Your task to perform on an android device: Clear the shopping cart on amazon. Add asus zenbook to the cart on amazon Image 0: 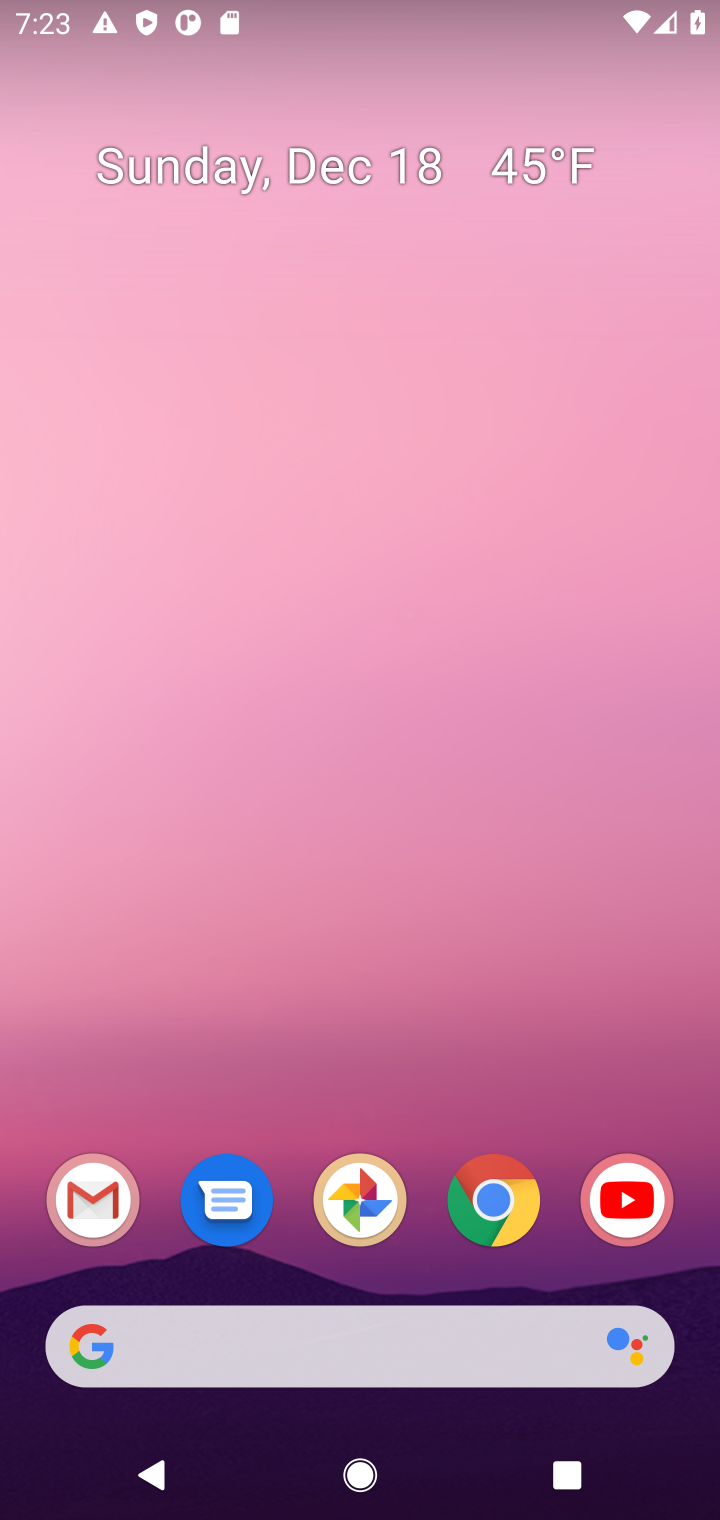
Step 0: click (505, 1198)
Your task to perform on an android device: Clear the shopping cart on amazon. Add asus zenbook to the cart on amazon Image 1: 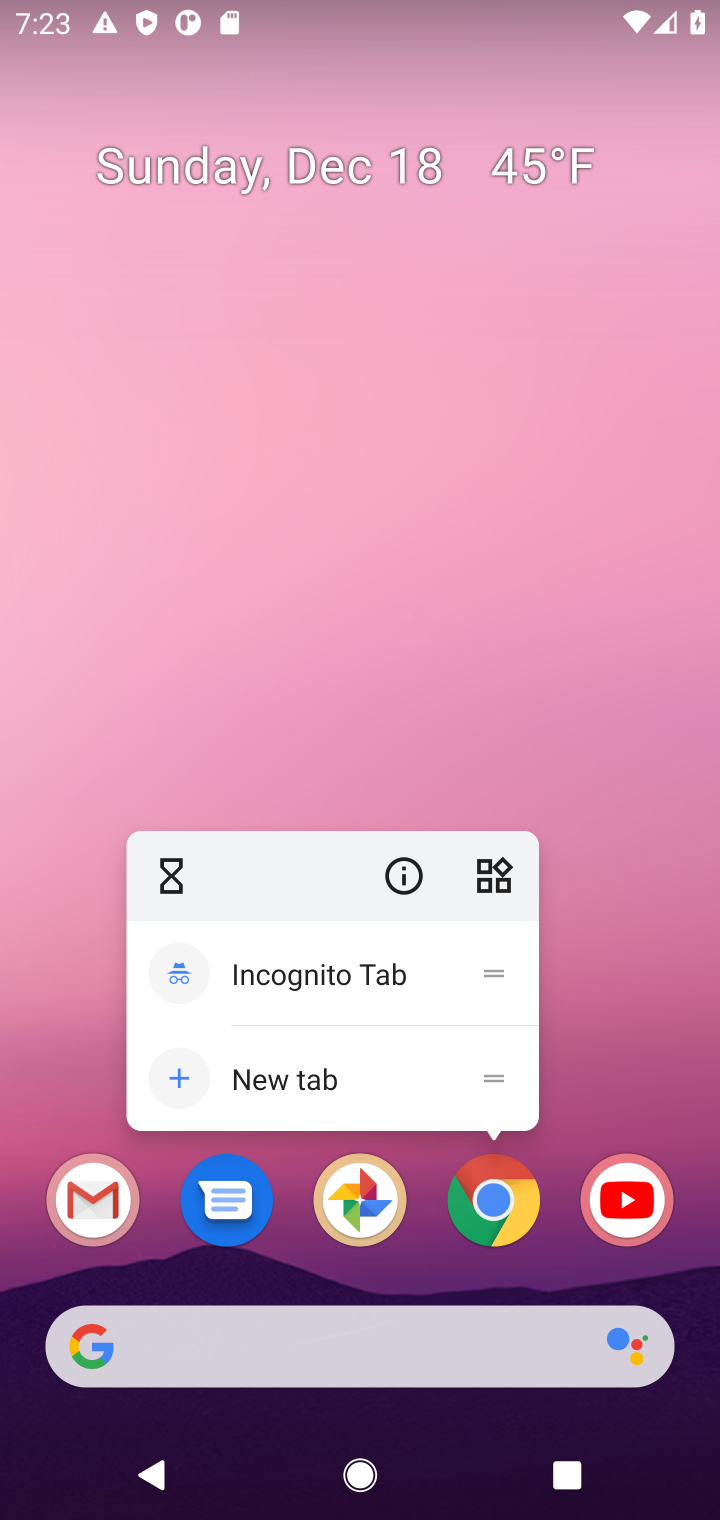
Step 1: click (499, 1205)
Your task to perform on an android device: Clear the shopping cart on amazon. Add asus zenbook to the cart on amazon Image 2: 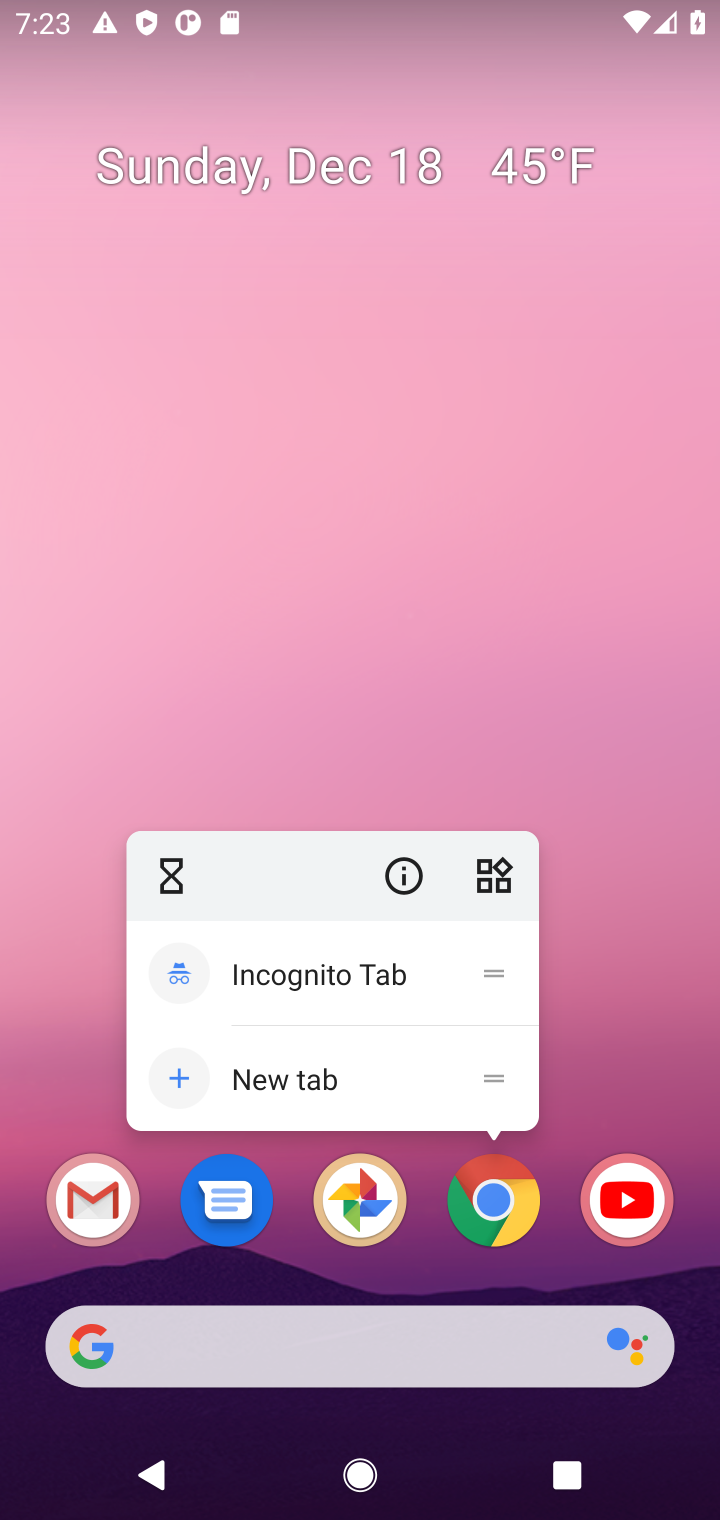
Step 2: click (492, 1198)
Your task to perform on an android device: Clear the shopping cart on amazon. Add asus zenbook to the cart on amazon Image 3: 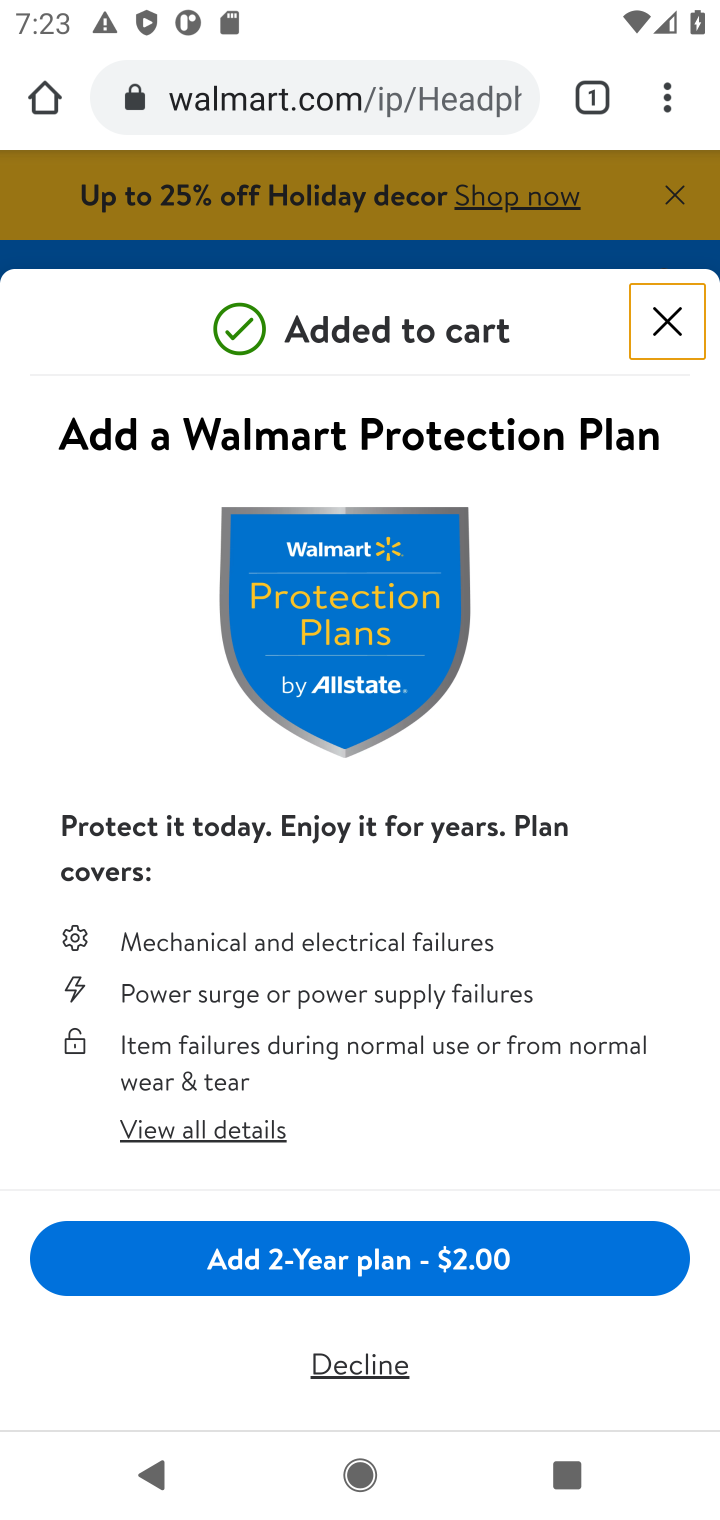
Step 3: click (218, 101)
Your task to perform on an android device: Clear the shopping cart on amazon. Add asus zenbook to the cart on amazon Image 4: 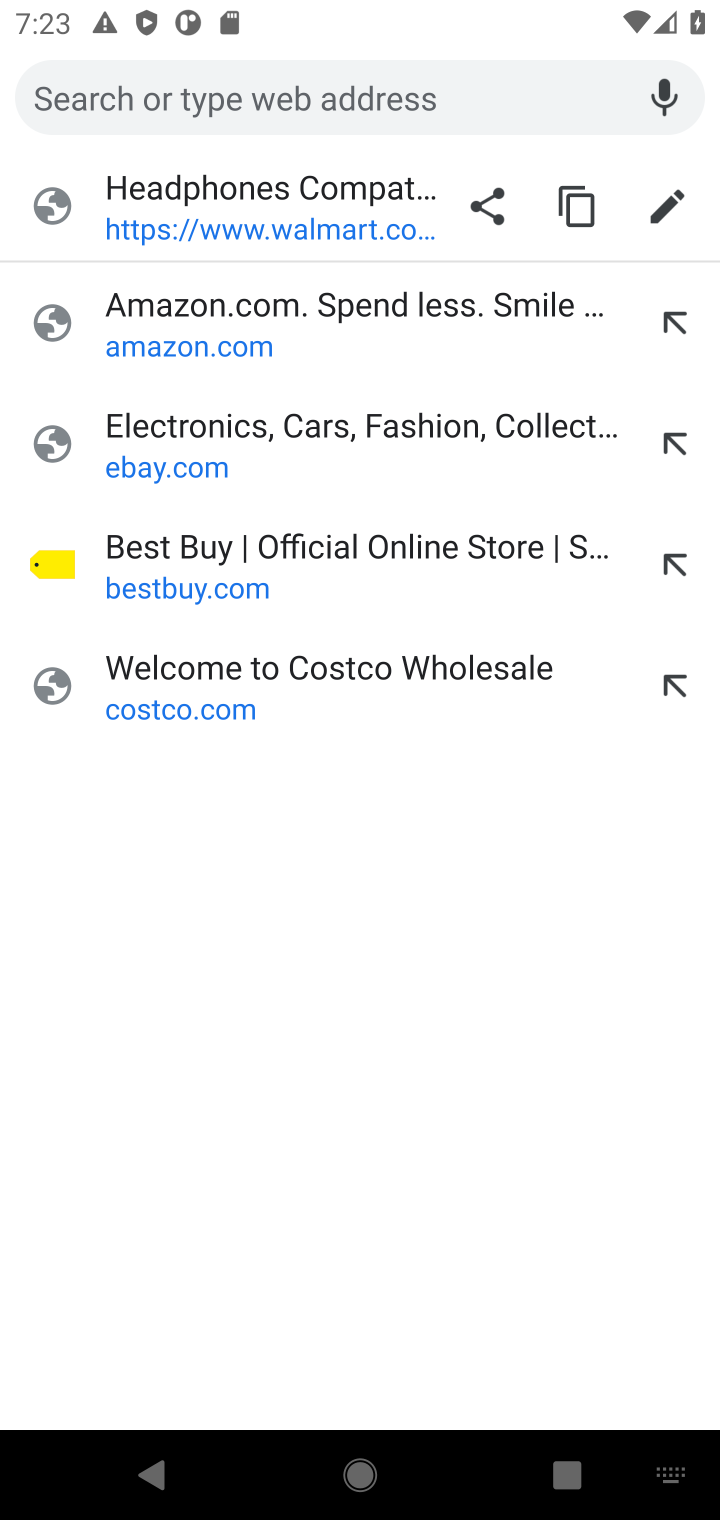
Step 4: click (139, 332)
Your task to perform on an android device: Clear the shopping cart on amazon. Add asus zenbook to the cart on amazon Image 5: 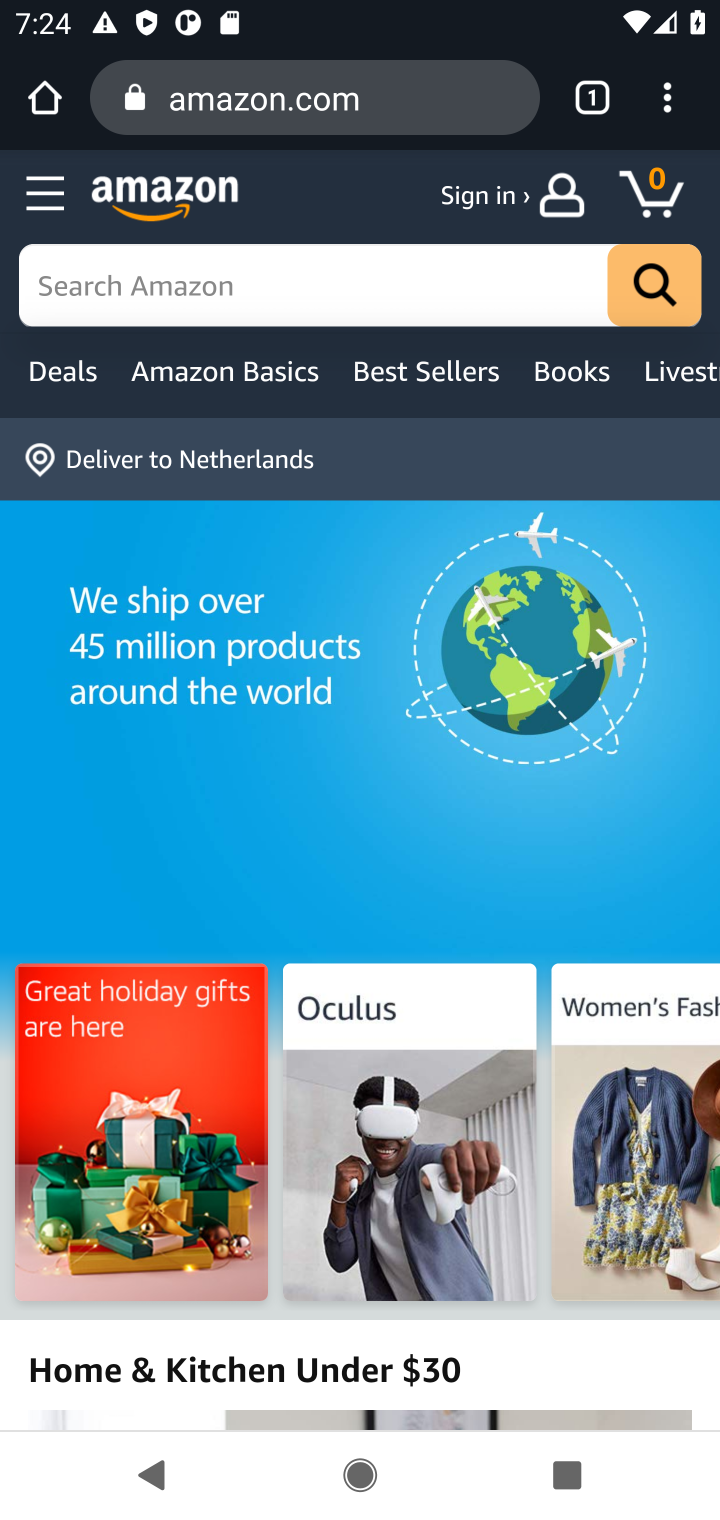
Step 5: click (656, 206)
Your task to perform on an android device: Clear the shopping cart on amazon. Add asus zenbook to the cart on amazon Image 6: 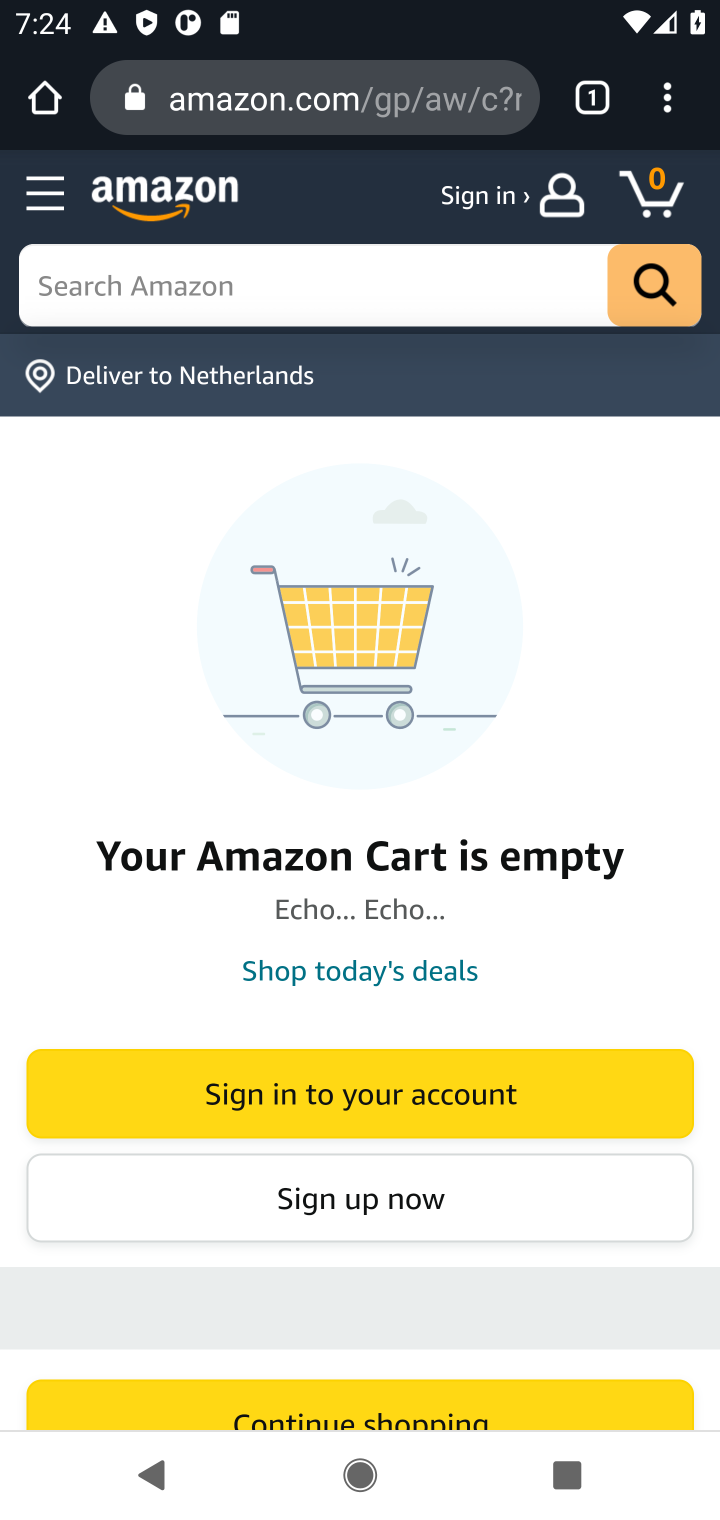
Step 6: click (80, 290)
Your task to perform on an android device: Clear the shopping cart on amazon. Add asus zenbook to the cart on amazon Image 7: 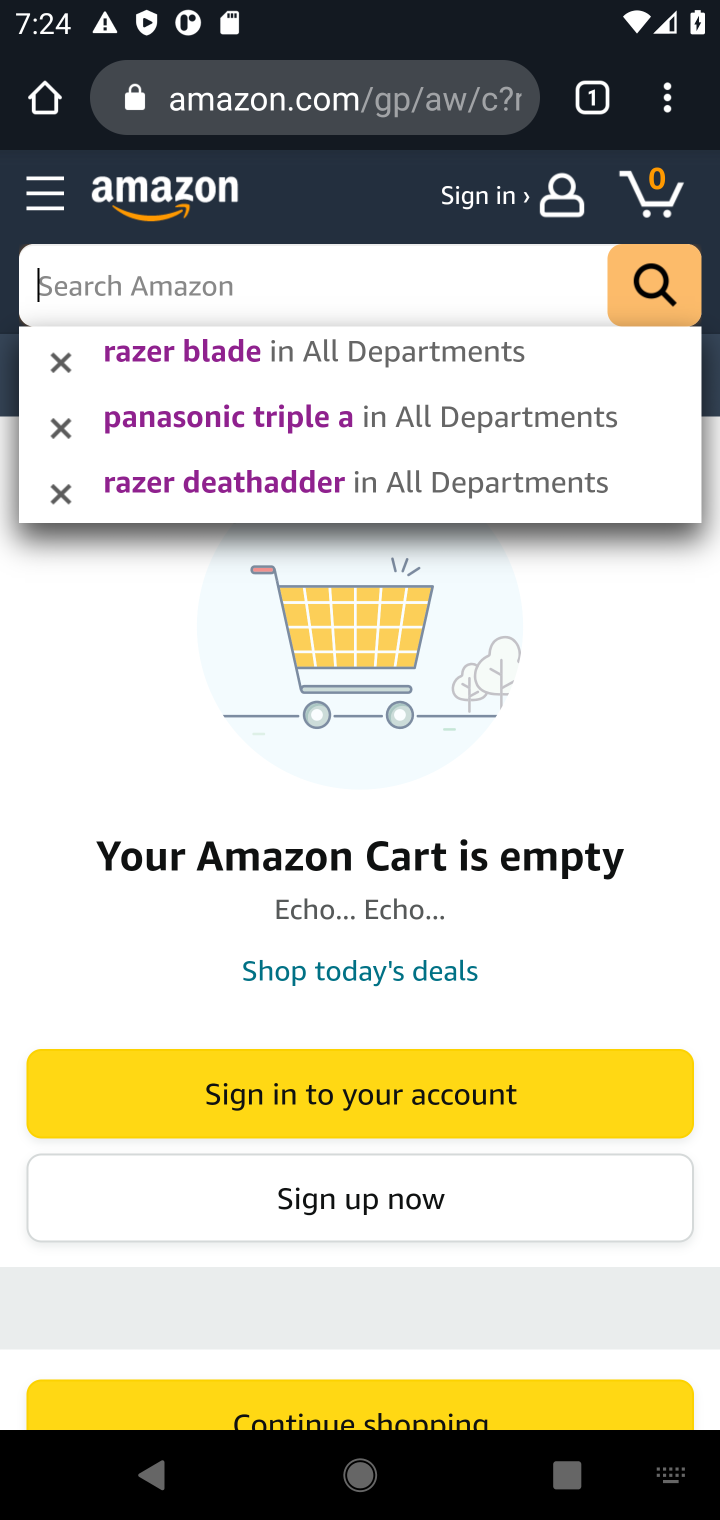
Step 7: type "asus zenbook"
Your task to perform on an android device: Clear the shopping cart on amazon. Add asus zenbook to the cart on amazon Image 8: 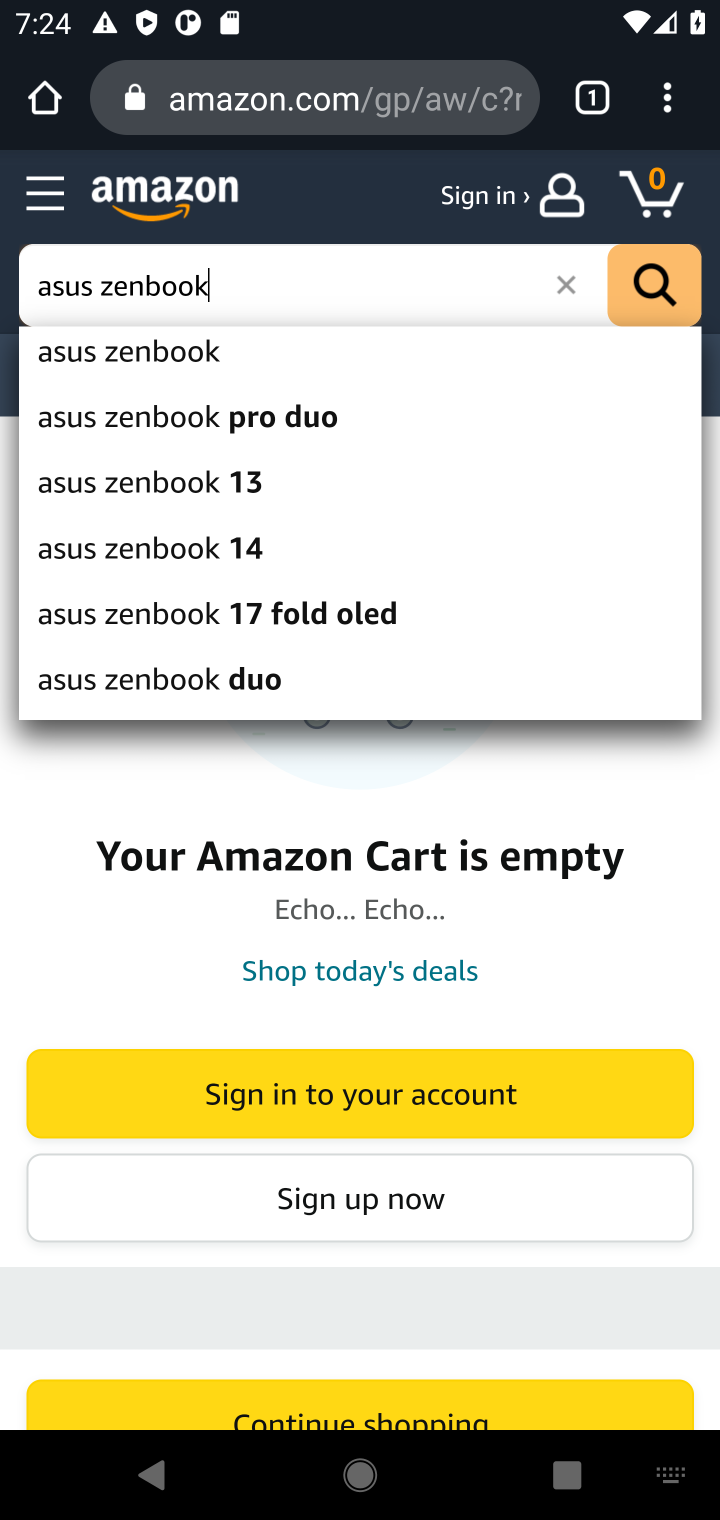
Step 8: click (168, 355)
Your task to perform on an android device: Clear the shopping cart on amazon. Add asus zenbook to the cart on amazon Image 9: 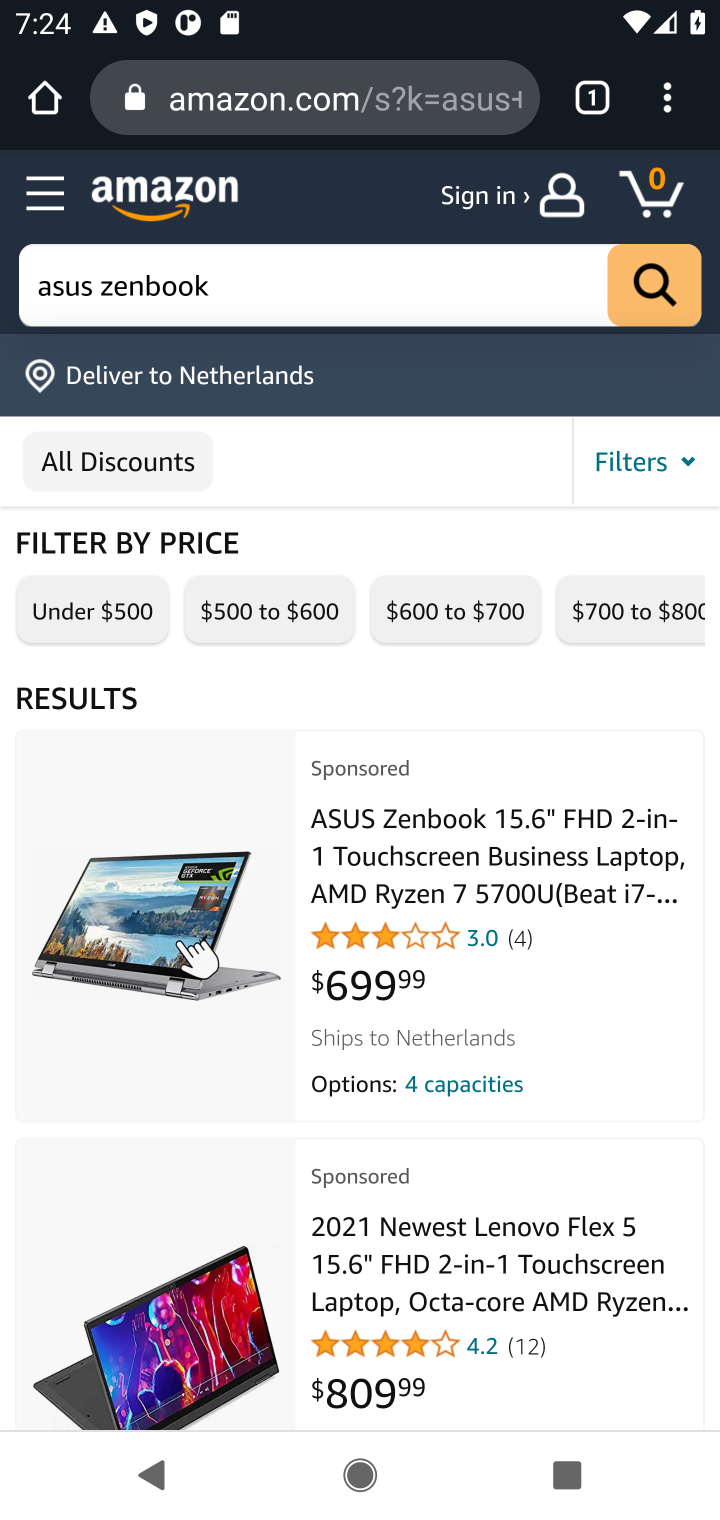
Step 9: click (350, 866)
Your task to perform on an android device: Clear the shopping cart on amazon. Add asus zenbook to the cart on amazon Image 10: 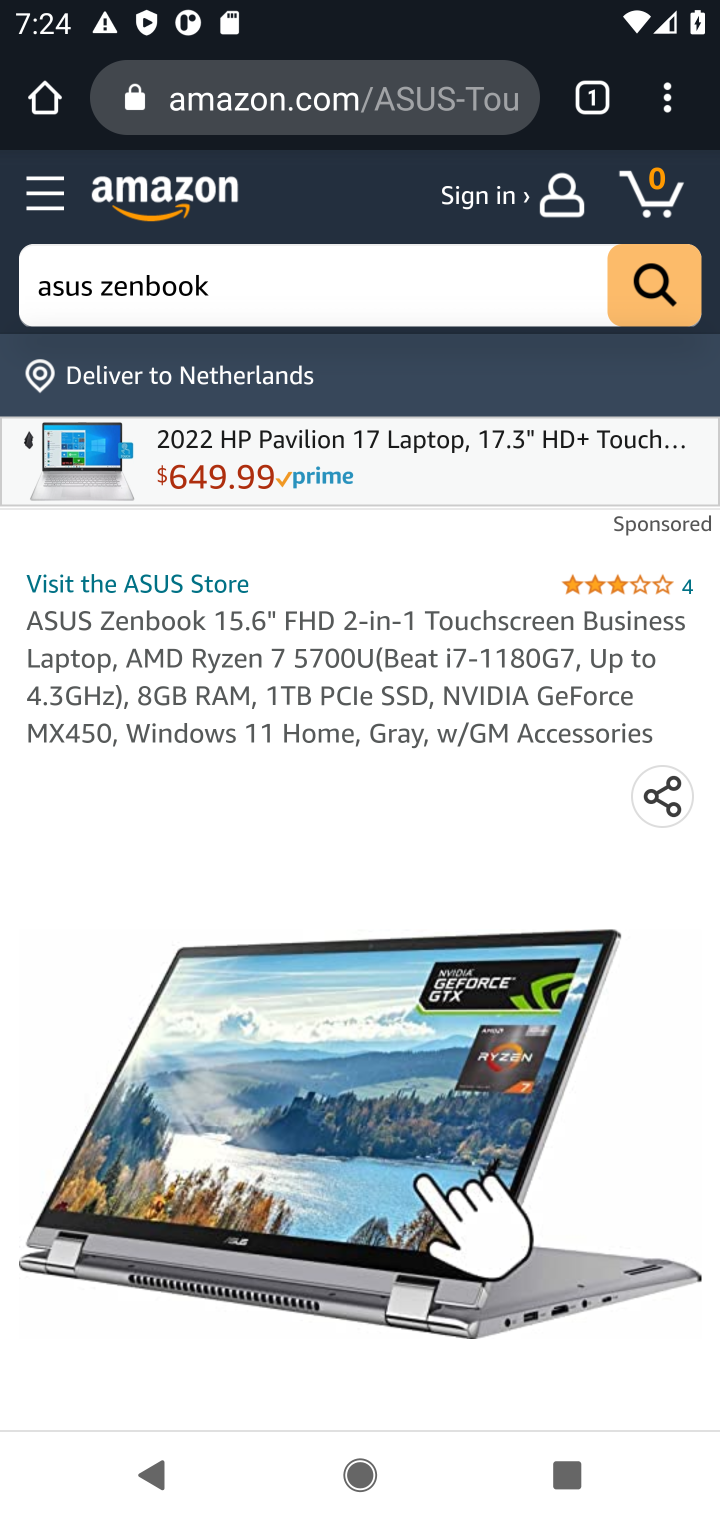
Step 10: drag from (331, 1076) to (313, 482)
Your task to perform on an android device: Clear the shopping cart on amazon. Add asus zenbook to the cart on amazon Image 11: 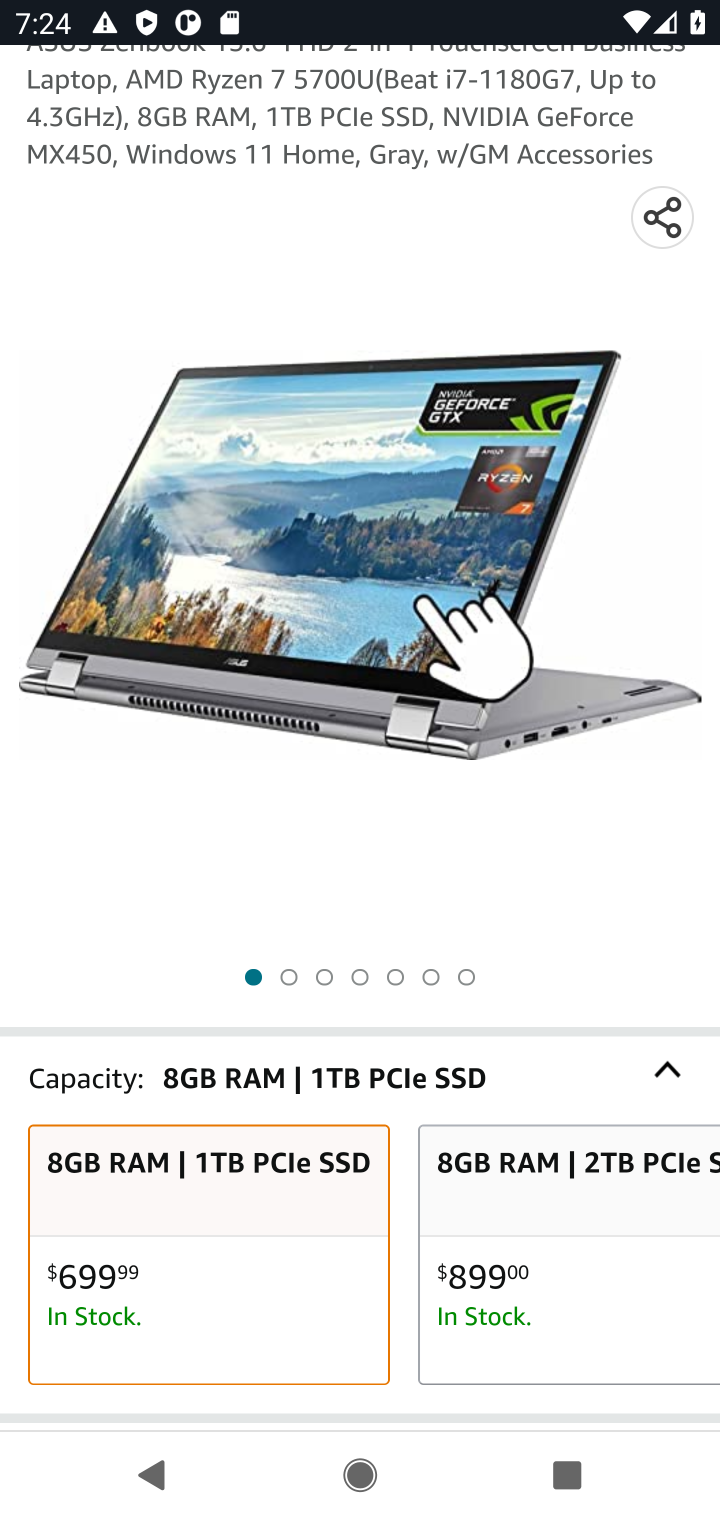
Step 11: drag from (306, 1039) to (324, 465)
Your task to perform on an android device: Clear the shopping cart on amazon. Add asus zenbook to the cart on amazon Image 12: 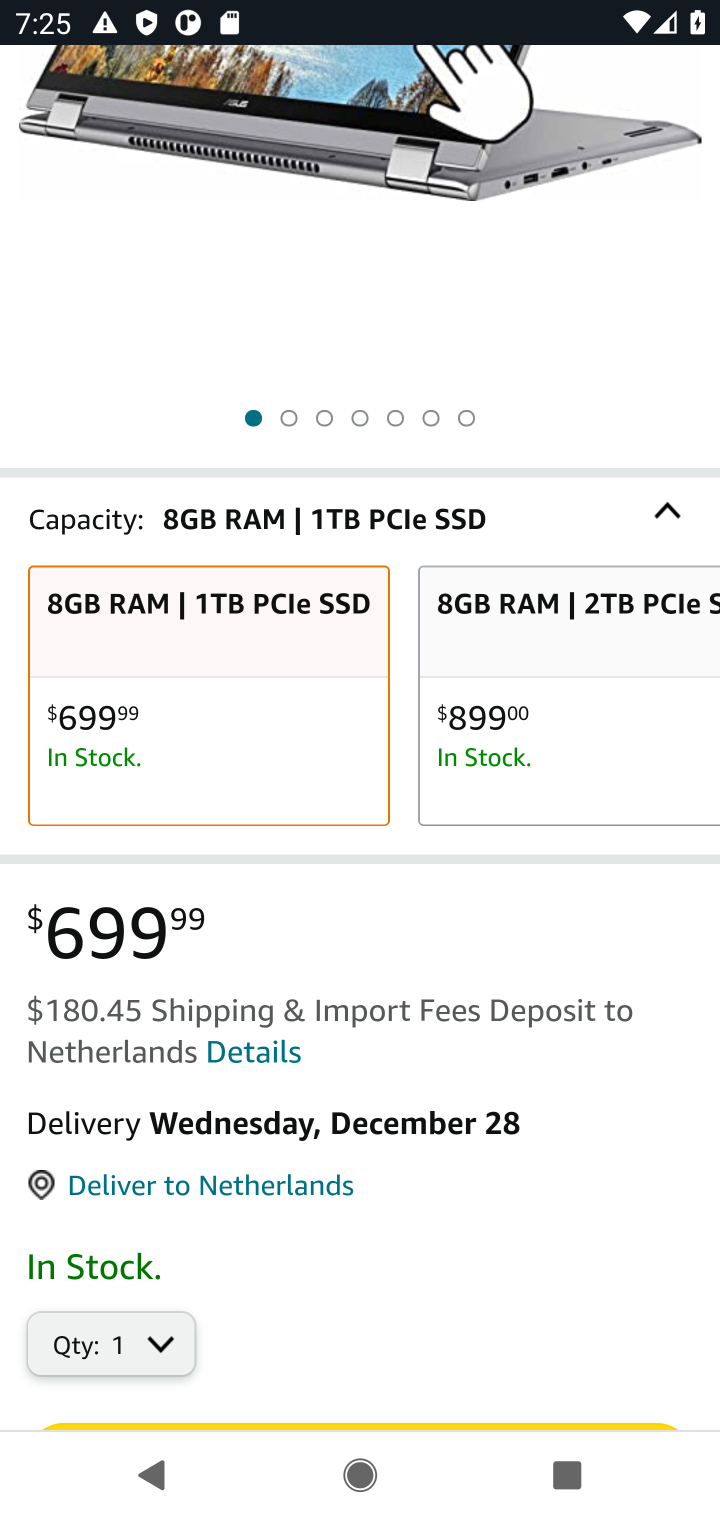
Step 12: drag from (325, 1108) to (303, 462)
Your task to perform on an android device: Clear the shopping cart on amazon. Add asus zenbook to the cart on amazon Image 13: 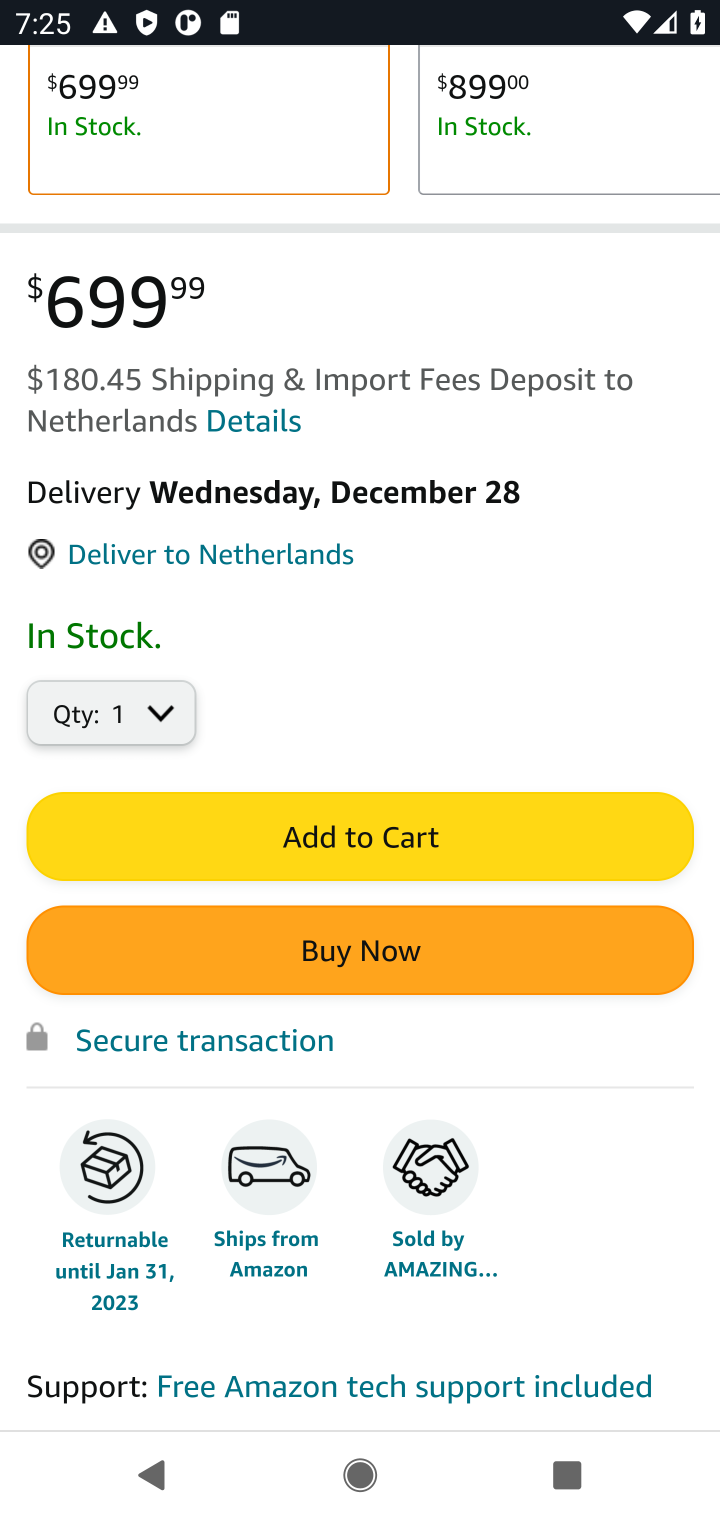
Step 13: click (336, 820)
Your task to perform on an android device: Clear the shopping cart on amazon. Add asus zenbook to the cart on amazon Image 14: 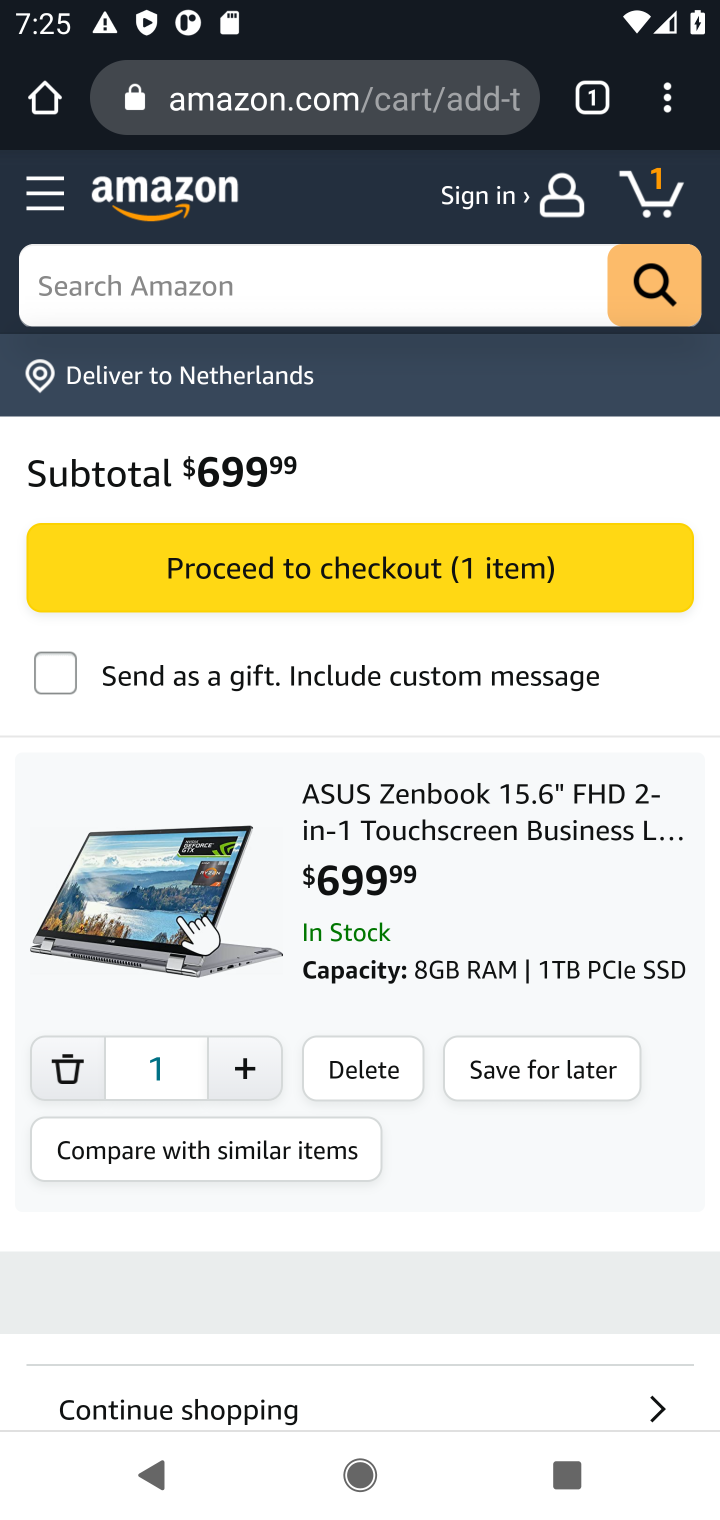
Step 14: task complete